Your task to perform on an android device: Go to Reddit.com Image 0: 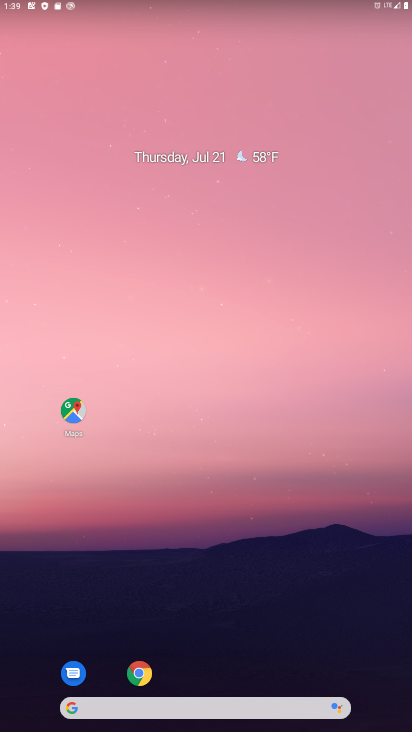
Step 0: drag from (190, 656) to (202, 274)
Your task to perform on an android device: Go to Reddit.com Image 1: 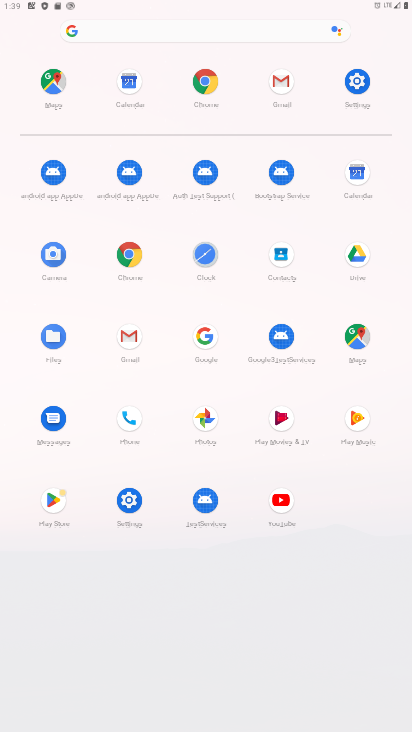
Step 1: click (202, 80)
Your task to perform on an android device: Go to Reddit.com Image 2: 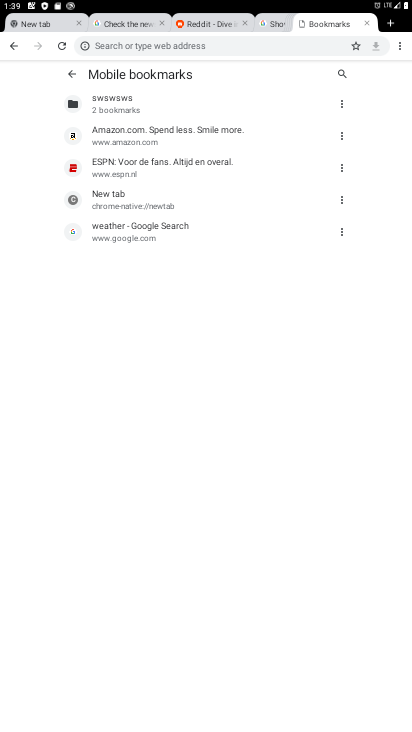
Step 2: click (388, 20)
Your task to perform on an android device: Go to Reddit.com Image 3: 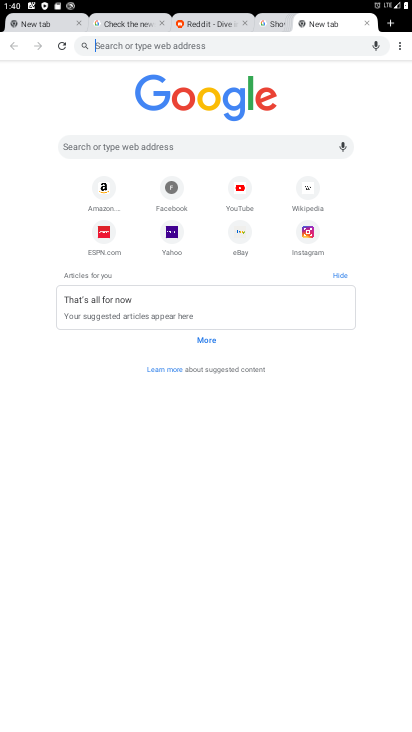
Step 3: click (207, 143)
Your task to perform on an android device: Go to Reddit.com Image 4: 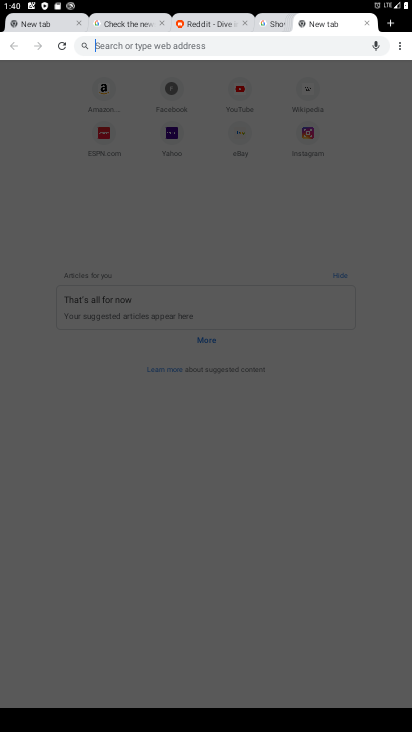
Step 4: type "Reddit.com "
Your task to perform on an android device: Go to Reddit.com Image 5: 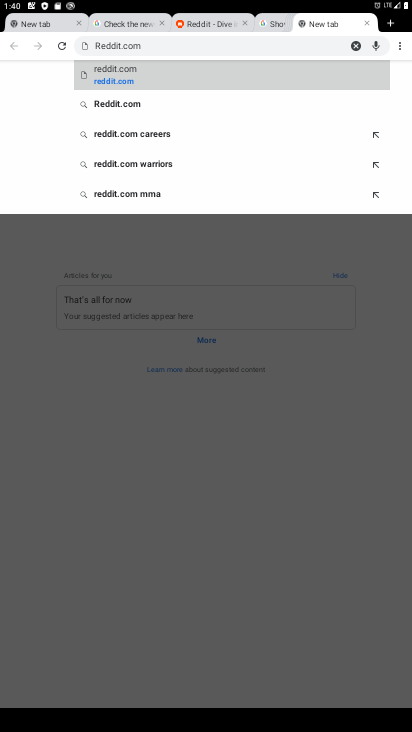
Step 5: click (206, 95)
Your task to perform on an android device: Go to Reddit.com Image 6: 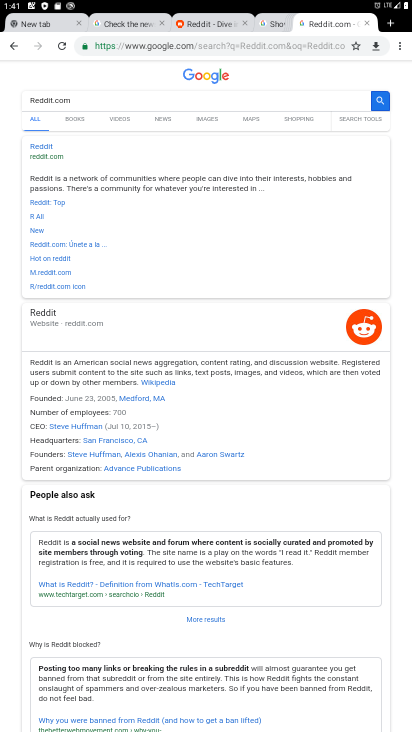
Step 6: task complete